Your task to perform on an android device: toggle notification dots Image 0: 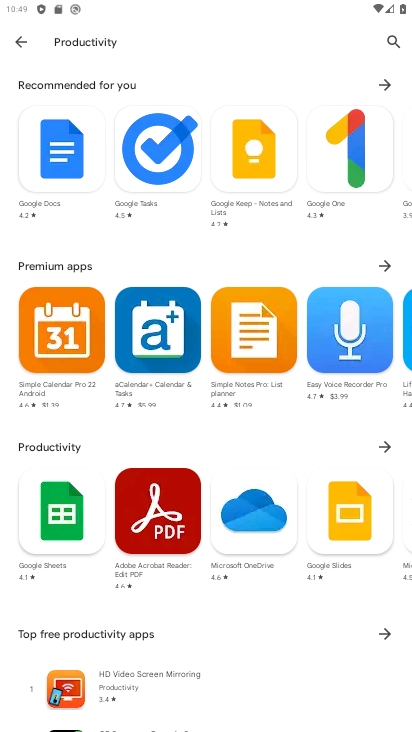
Step 0: press home button
Your task to perform on an android device: toggle notification dots Image 1: 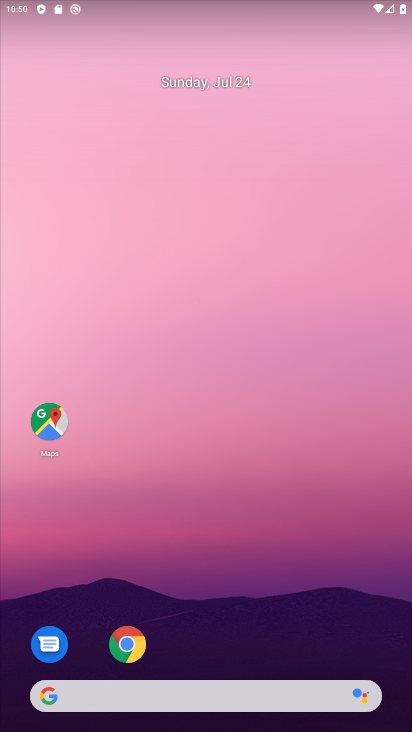
Step 1: drag from (231, 666) to (284, 0)
Your task to perform on an android device: toggle notification dots Image 2: 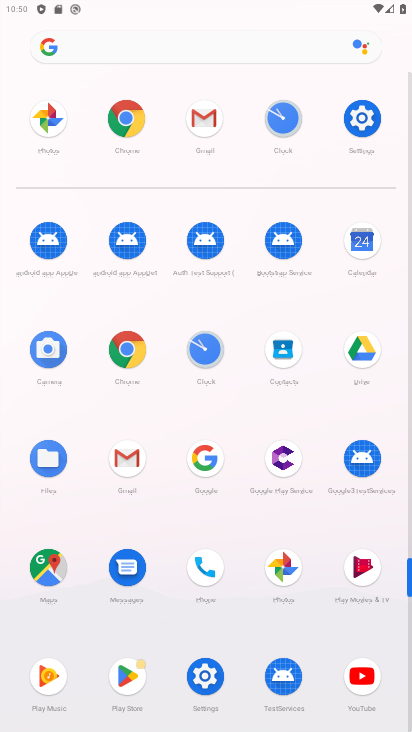
Step 2: click (362, 122)
Your task to perform on an android device: toggle notification dots Image 3: 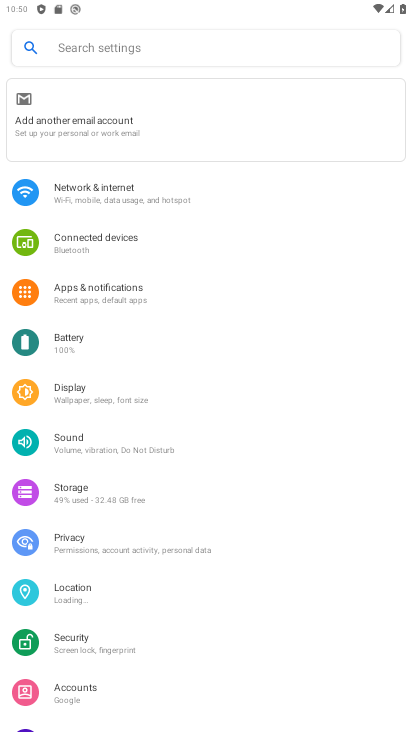
Step 3: click (66, 298)
Your task to perform on an android device: toggle notification dots Image 4: 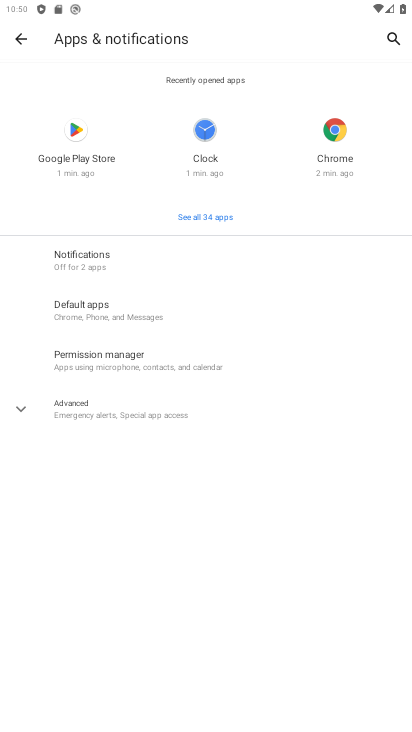
Step 4: click (70, 270)
Your task to perform on an android device: toggle notification dots Image 5: 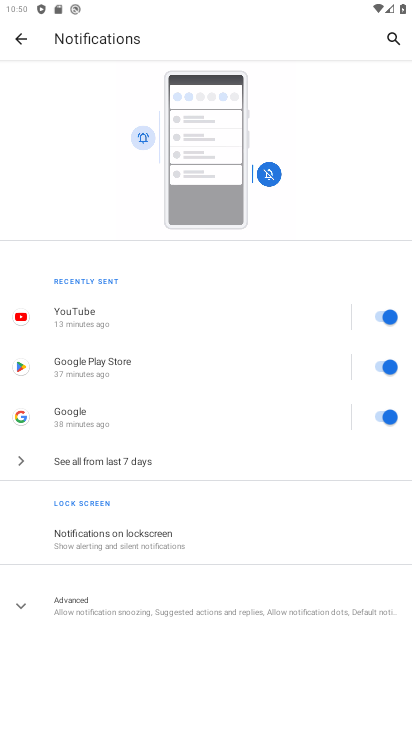
Step 5: click (20, 608)
Your task to perform on an android device: toggle notification dots Image 6: 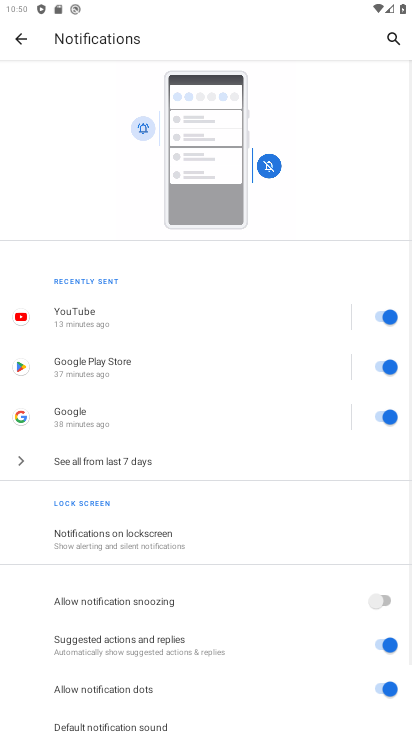
Step 6: drag from (197, 605) to (199, 289)
Your task to perform on an android device: toggle notification dots Image 7: 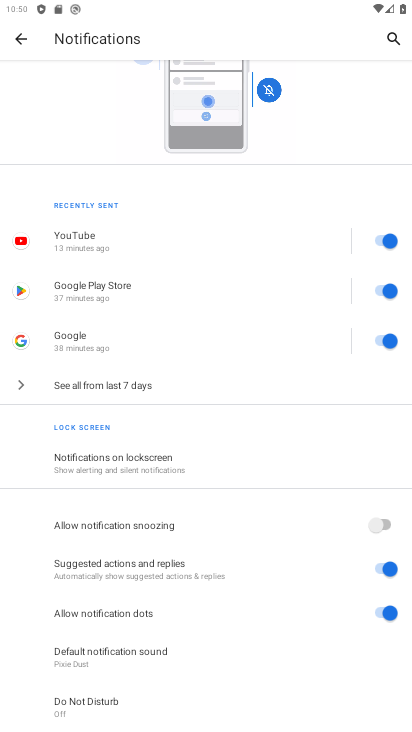
Step 7: click (388, 611)
Your task to perform on an android device: toggle notification dots Image 8: 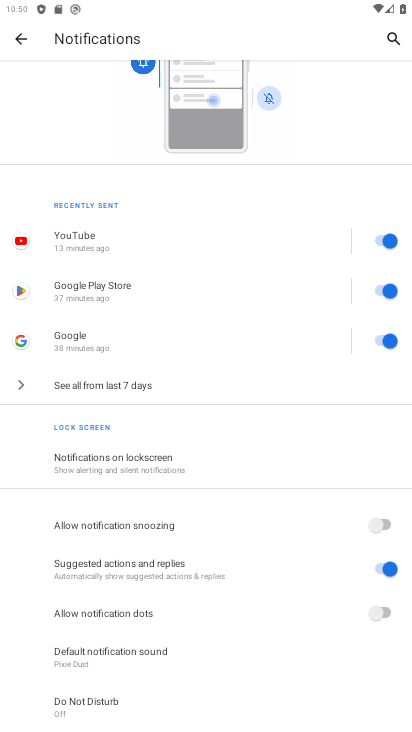
Step 8: task complete